Your task to perform on an android device: delete a single message in the gmail app Image 0: 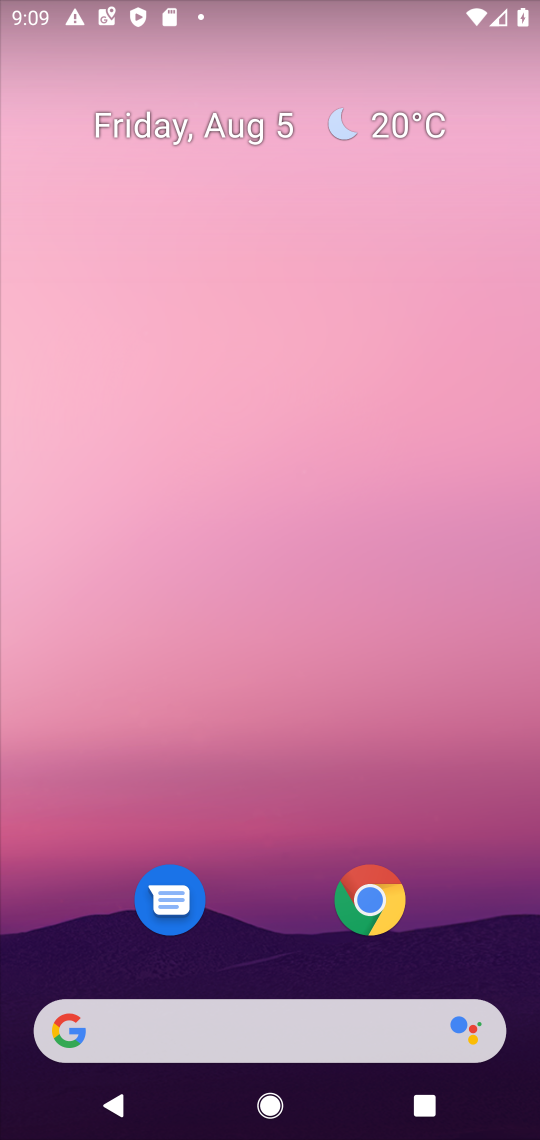
Step 0: press home button
Your task to perform on an android device: delete a single message in the gmail app Image 1: 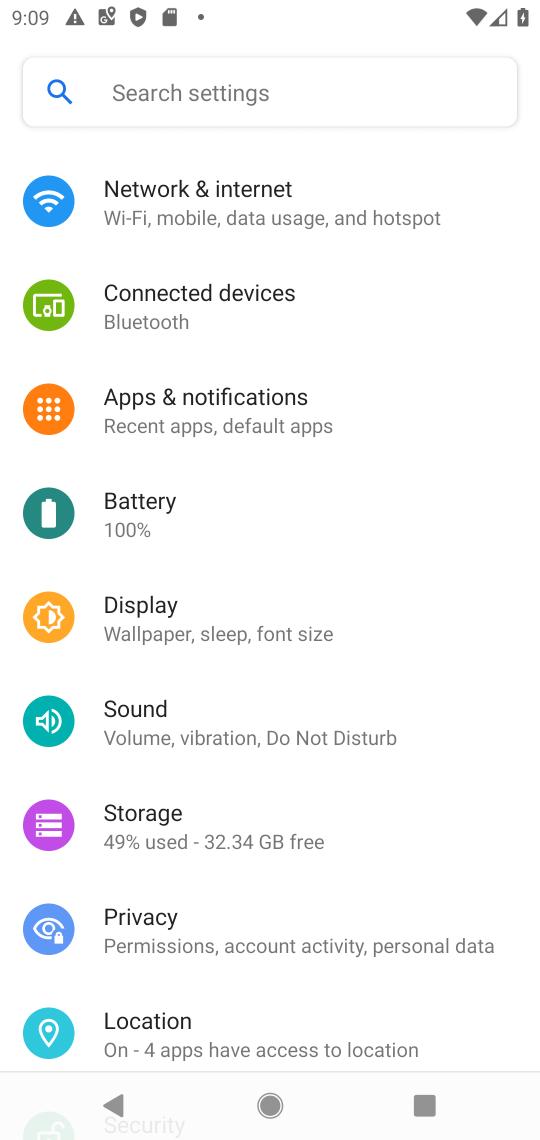
Step 1: press home button
Your task to perform on an android device: delete a single message in the gmail app Image 2: 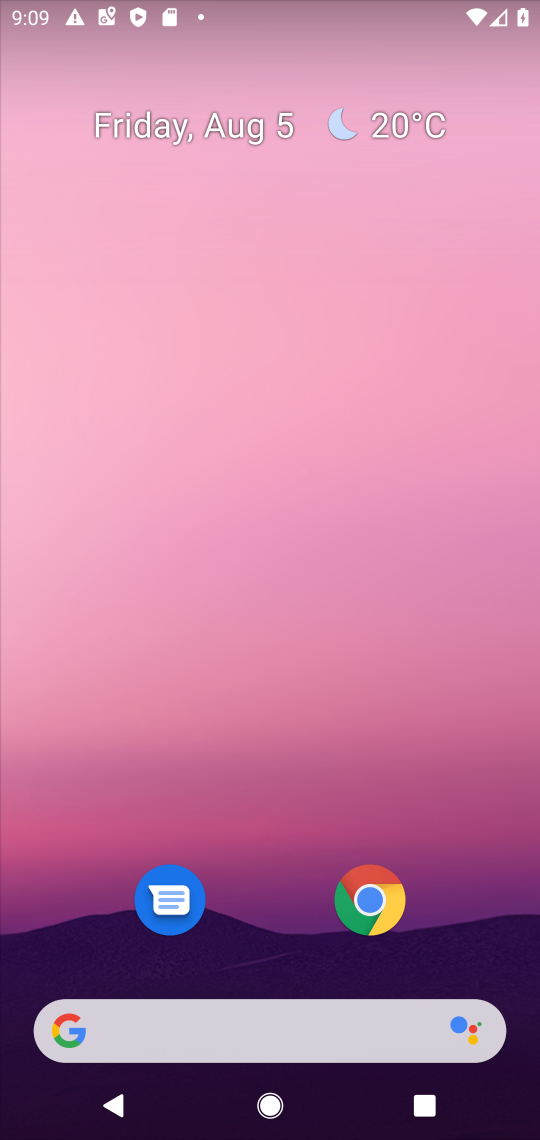
Step 2: press home button
Your task to perform on an android device: delete a single message in the gmail app Image 3: 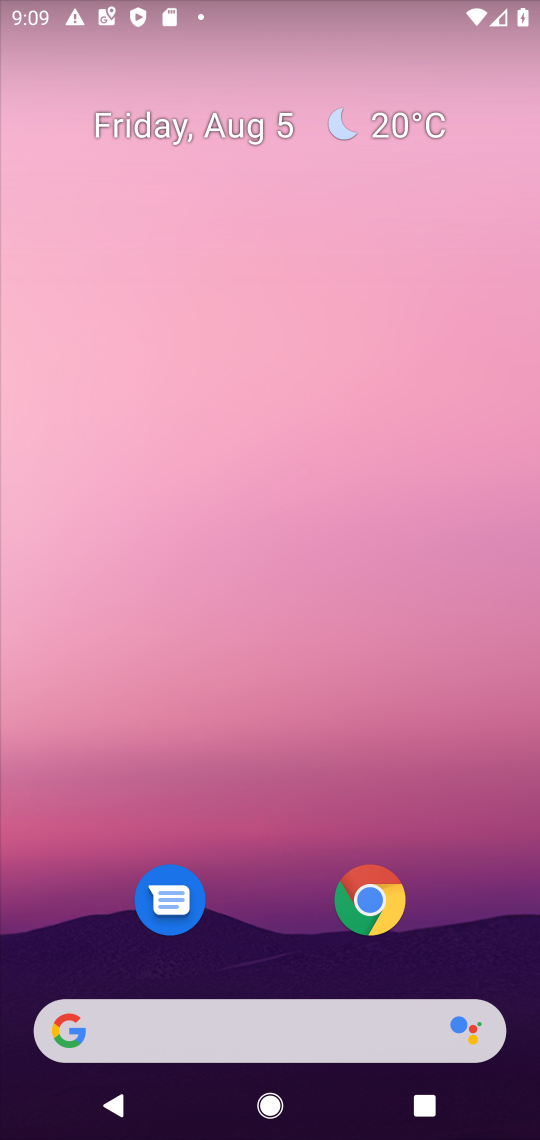
Step 3: drag from (245, 913) to (245, 230)
Your task to perform on an android device: delete a single message in the gmail app Image 4: 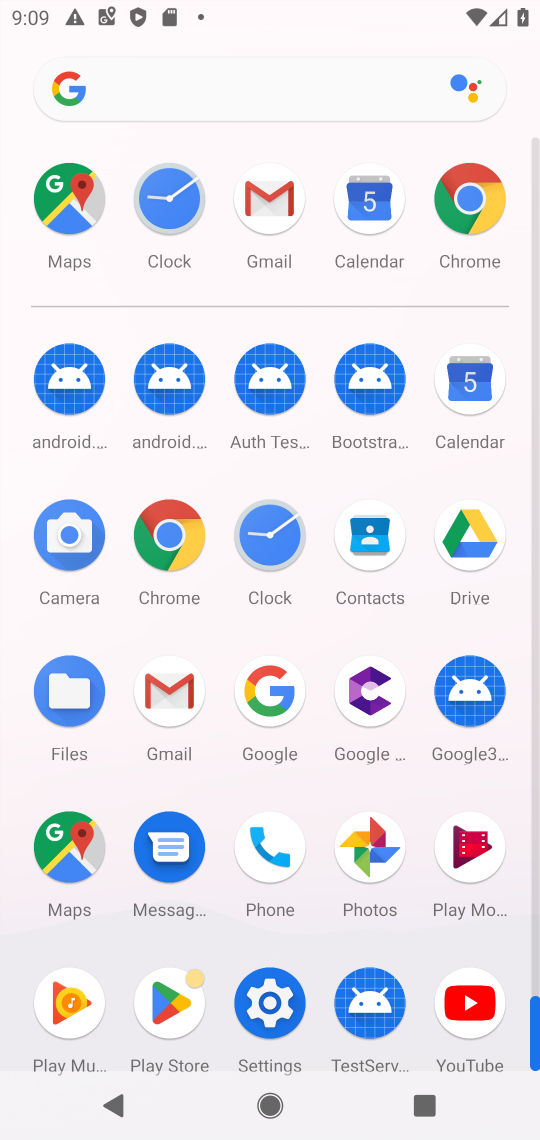
Step 4: click (165, 720)
Your task to perform on an android device: delete a single message in the gmail app Image 5: 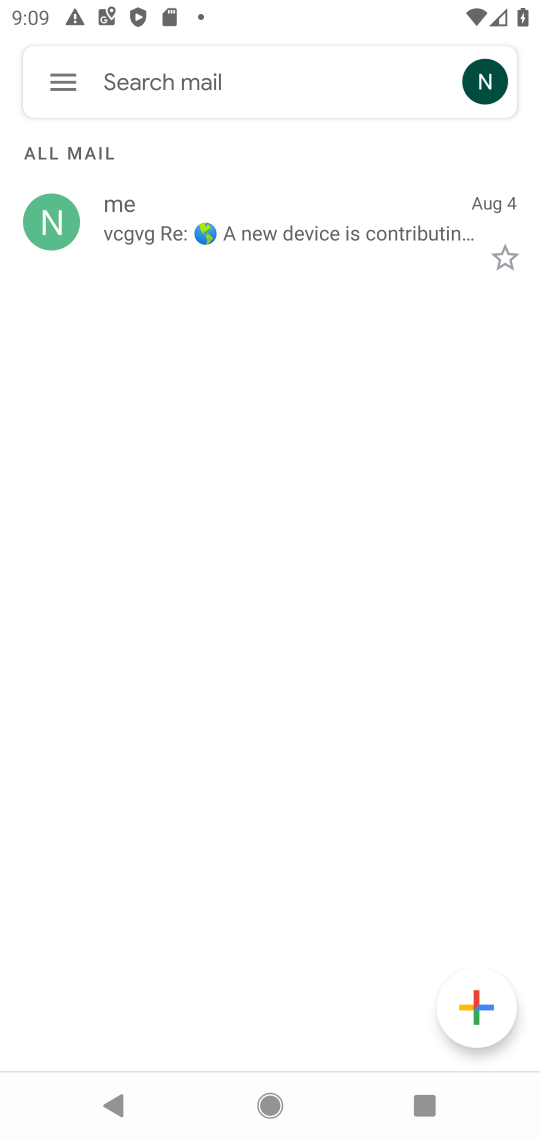
Step 5: click (83, 214)
Your task to perform on an android device: delete a single message in the gmail app Image 6: 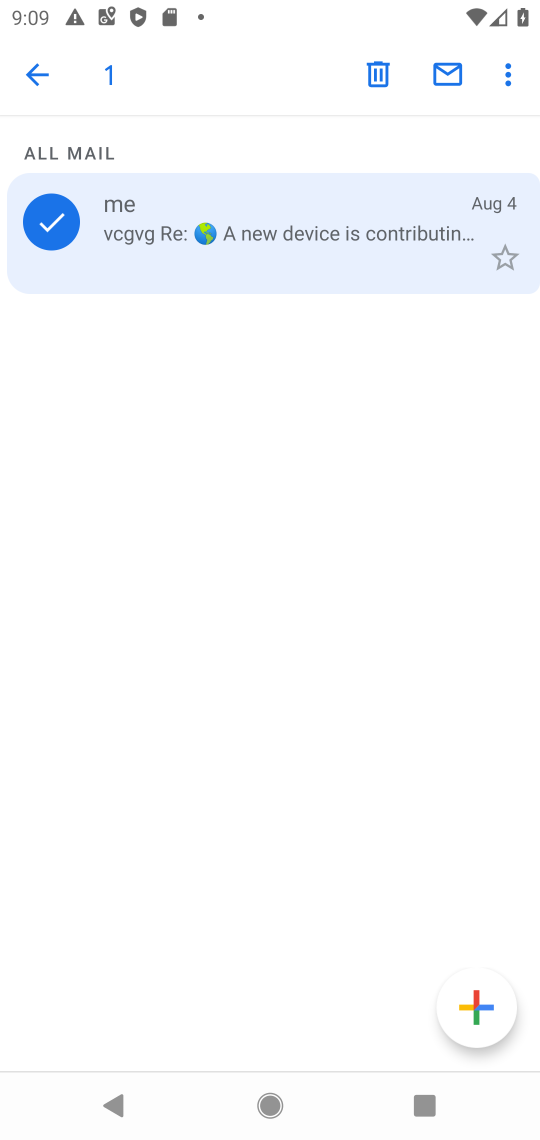
Step 6: click (378, 79)
Your task to perform on an android device: delete a single message in the gmail app Image 7: 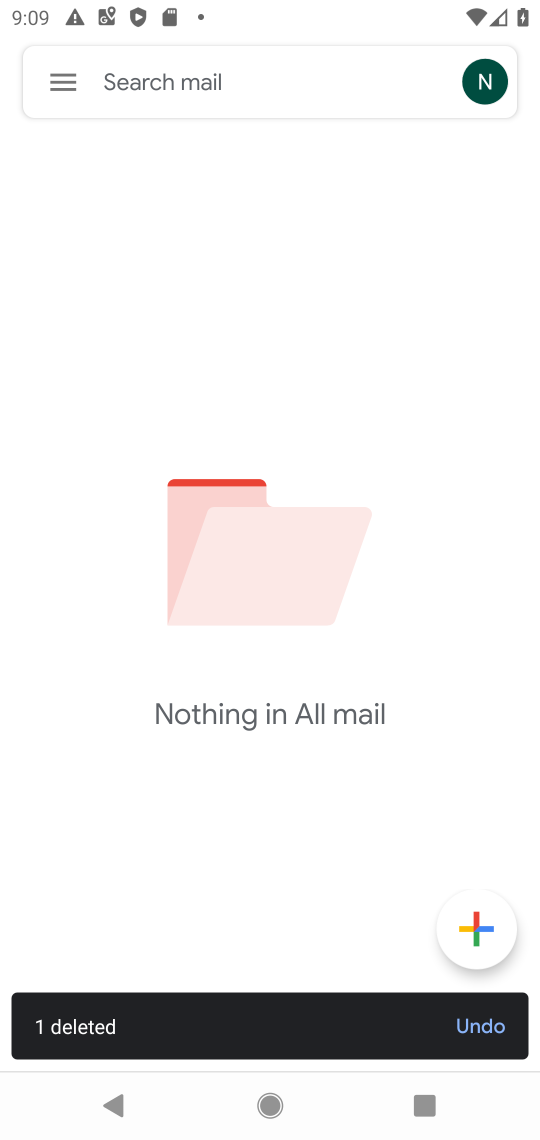
Step 7: task complete